Your task to perform on an android device: Go to Wikipedia Image 0: 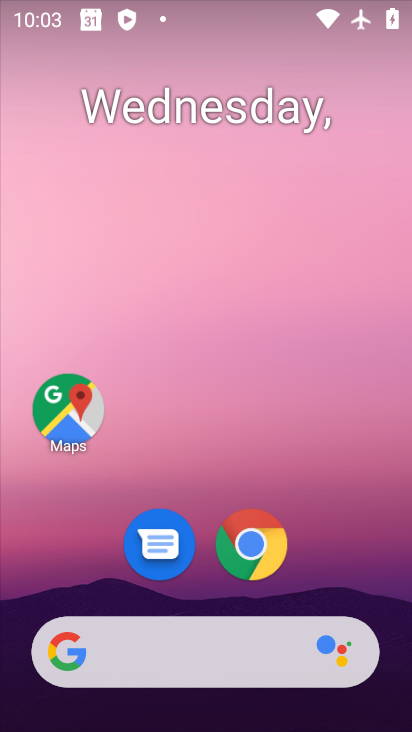
Step 0: click (255, 558)
Your task to perform on an android device: Go to Wikipedia Image 1: 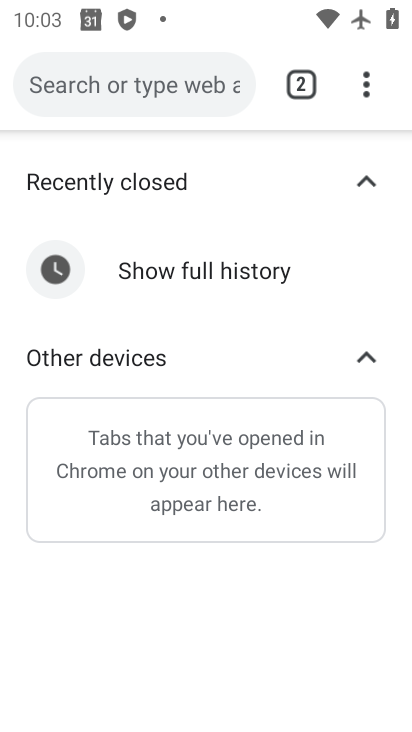
Step 1: click (152, 78)
Your task to perform on an android device: Go to Wikipedia Image 2: 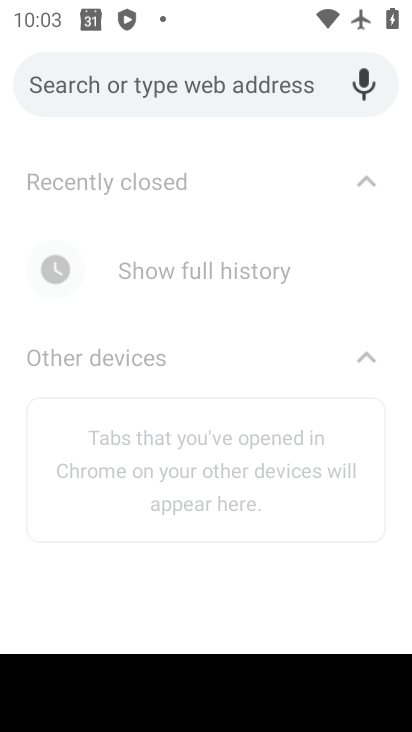
Step 2: type "wikipedia"
Your task to perform on an android device: Go to Wikipedia Image 3: 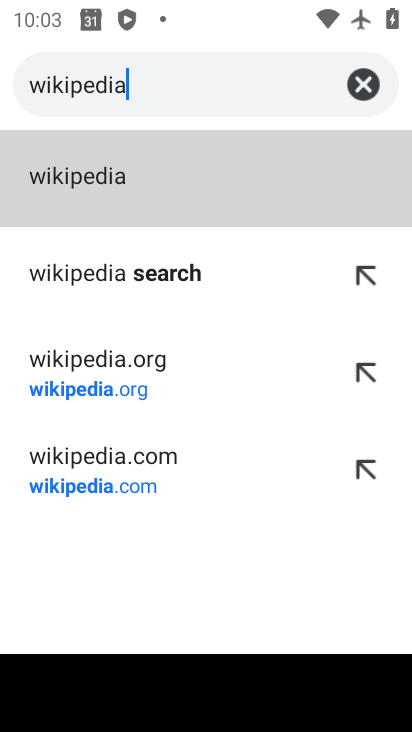
Step 3: click (69, 168)
Your task to perform on an android device: Go to Wikipedia Image 4: 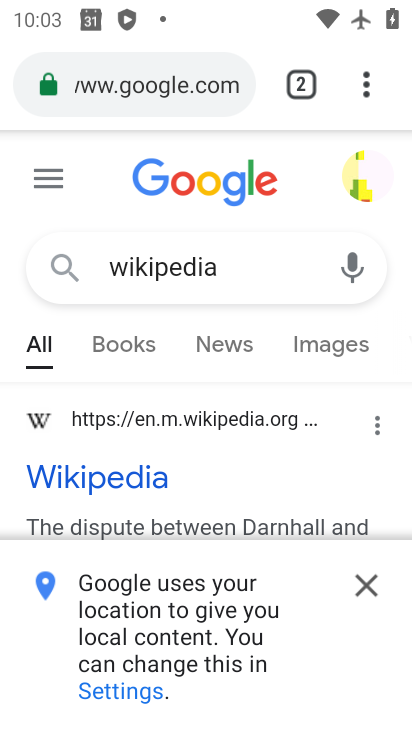
Step 4: click (31, 475)
Your task to perform on an android device: Go to Wikipedia Image 5: 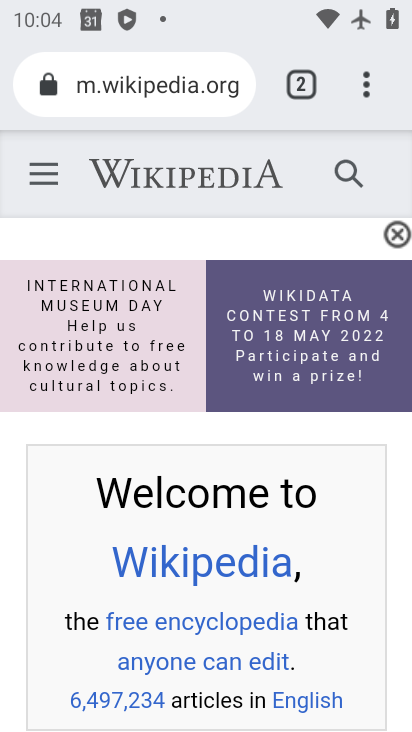
Step 5: task complete